Your task to perform on an android device: Go to network settings Image 0: 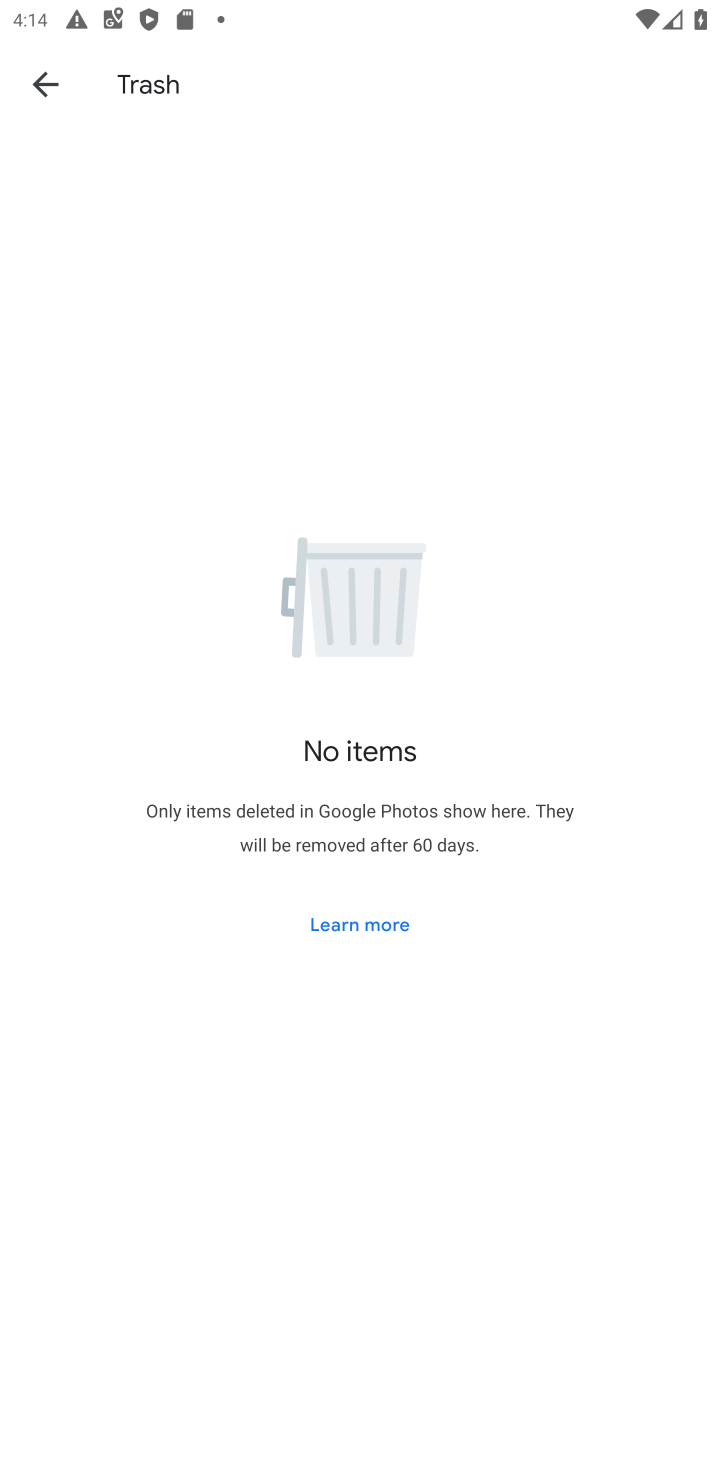
Step 0: press home button
Your task to perform on an android device: Go to network settings Image 1: 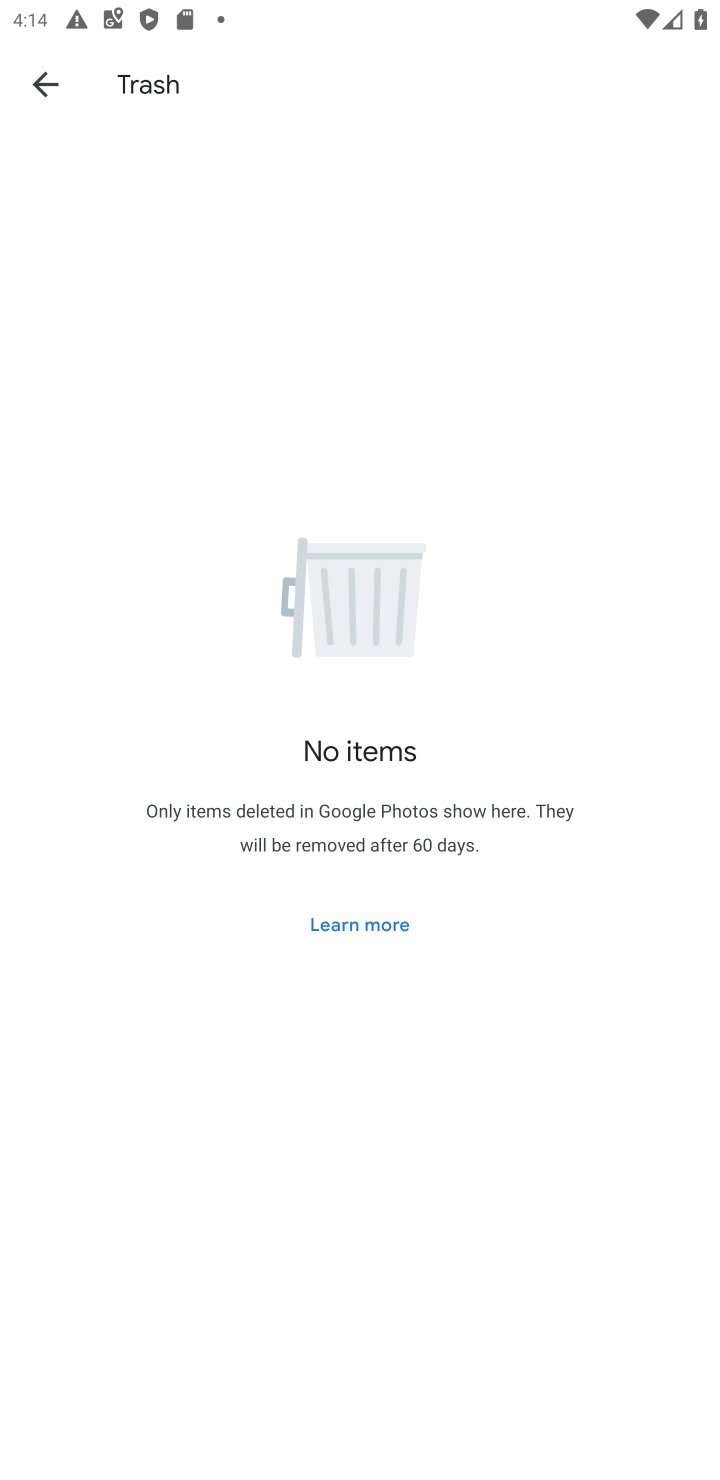
Step 1: press home button
Your task to perform on an android device: Go to network settings Image 2: 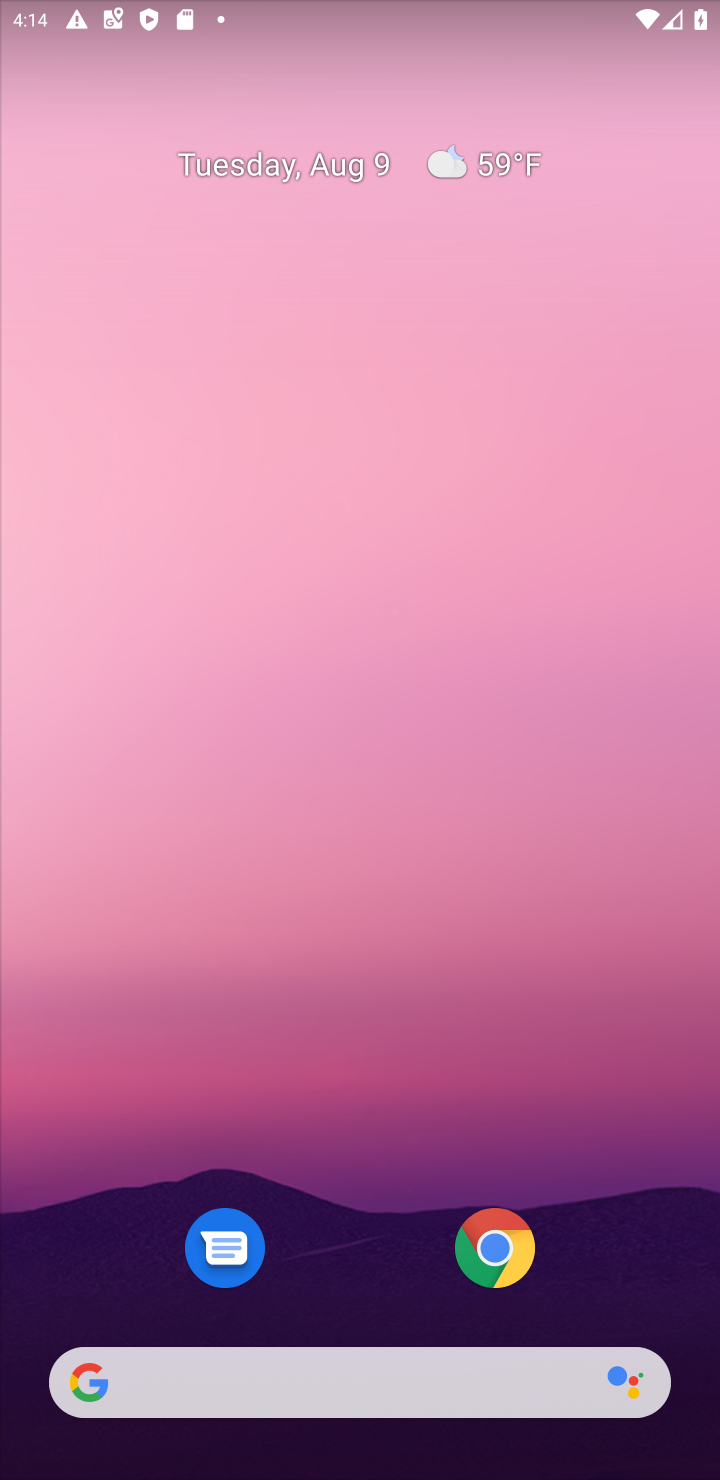
Step 2: drag from (400, 1198) to (352, 481)
Your task to perform on an android device: Go to network settings Image 3: 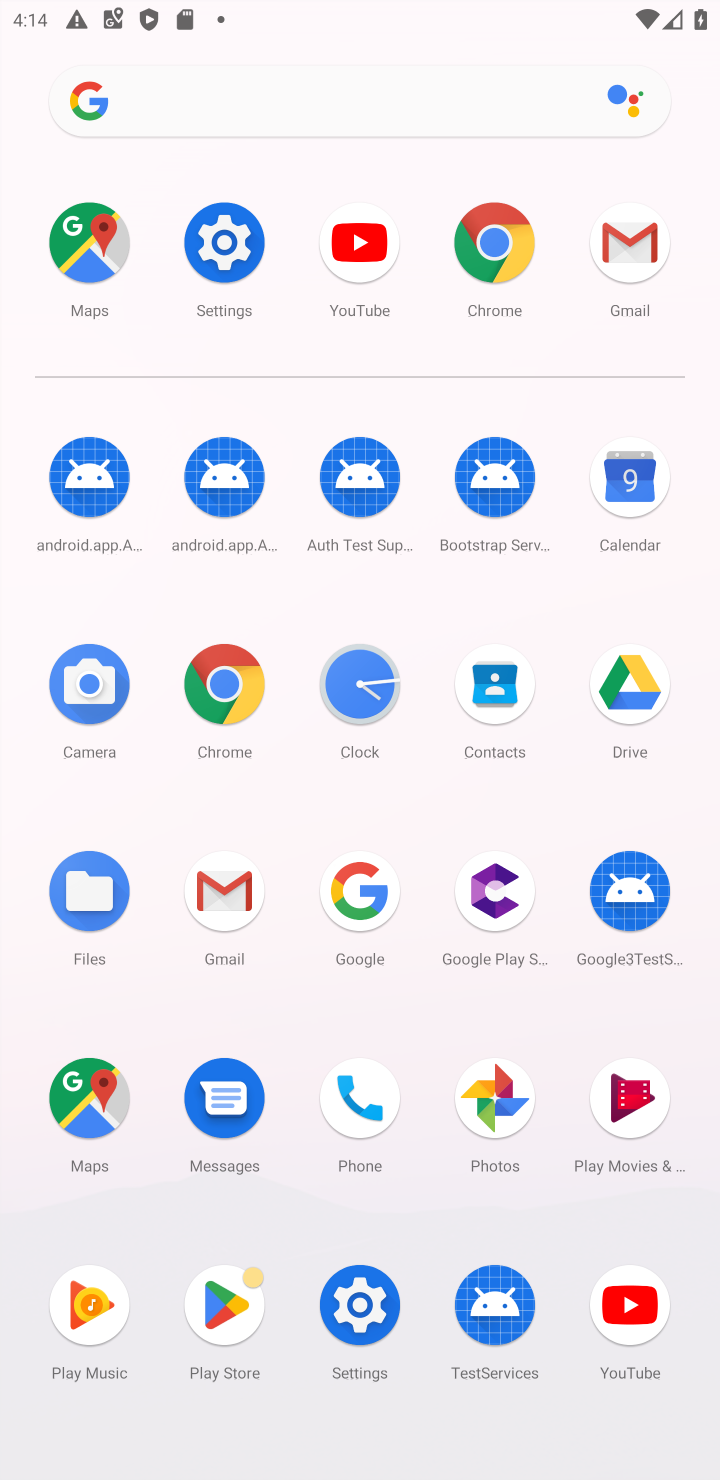
Step 3: click (242, 235)
Your task to perform on an android device: Go to network settings Image 4: 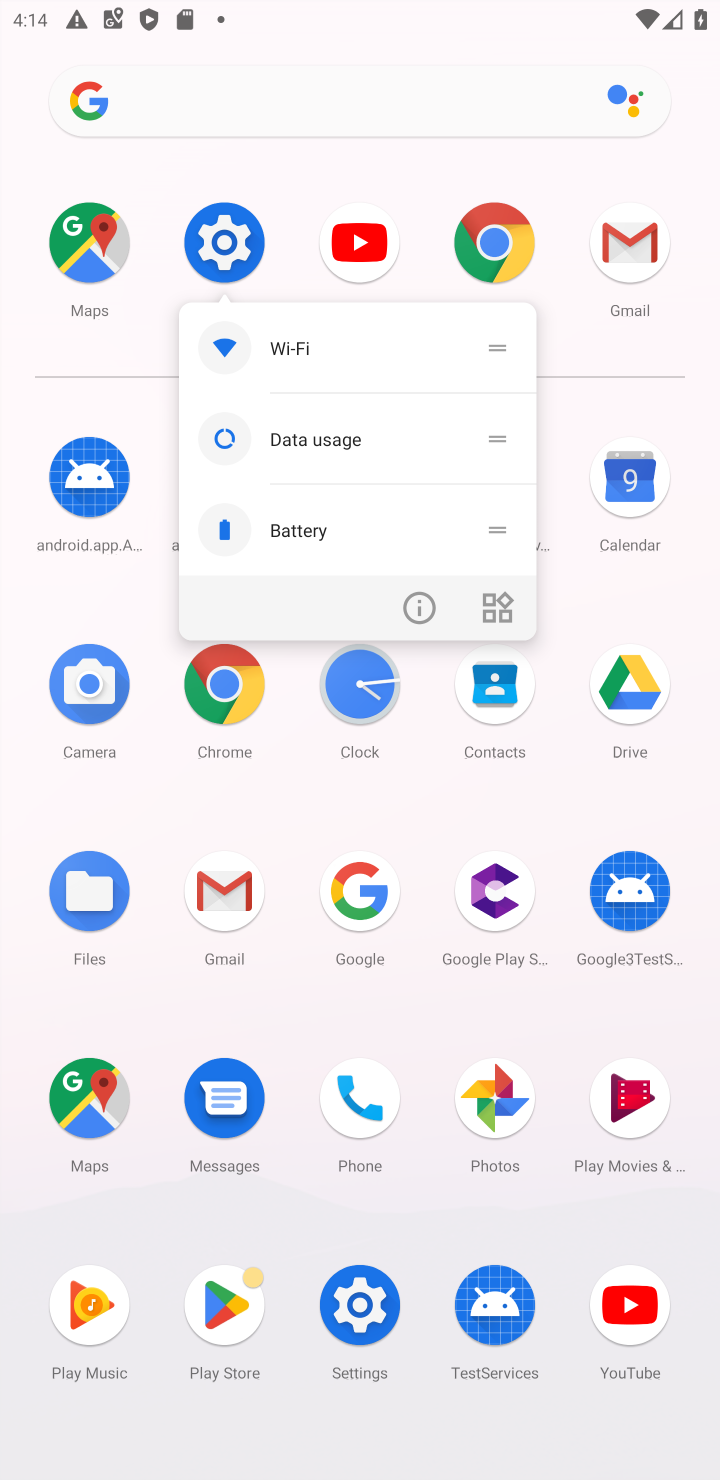
Step 4: click (225, 235)
Your task to perform on an android device: Go to network settings Image 5: 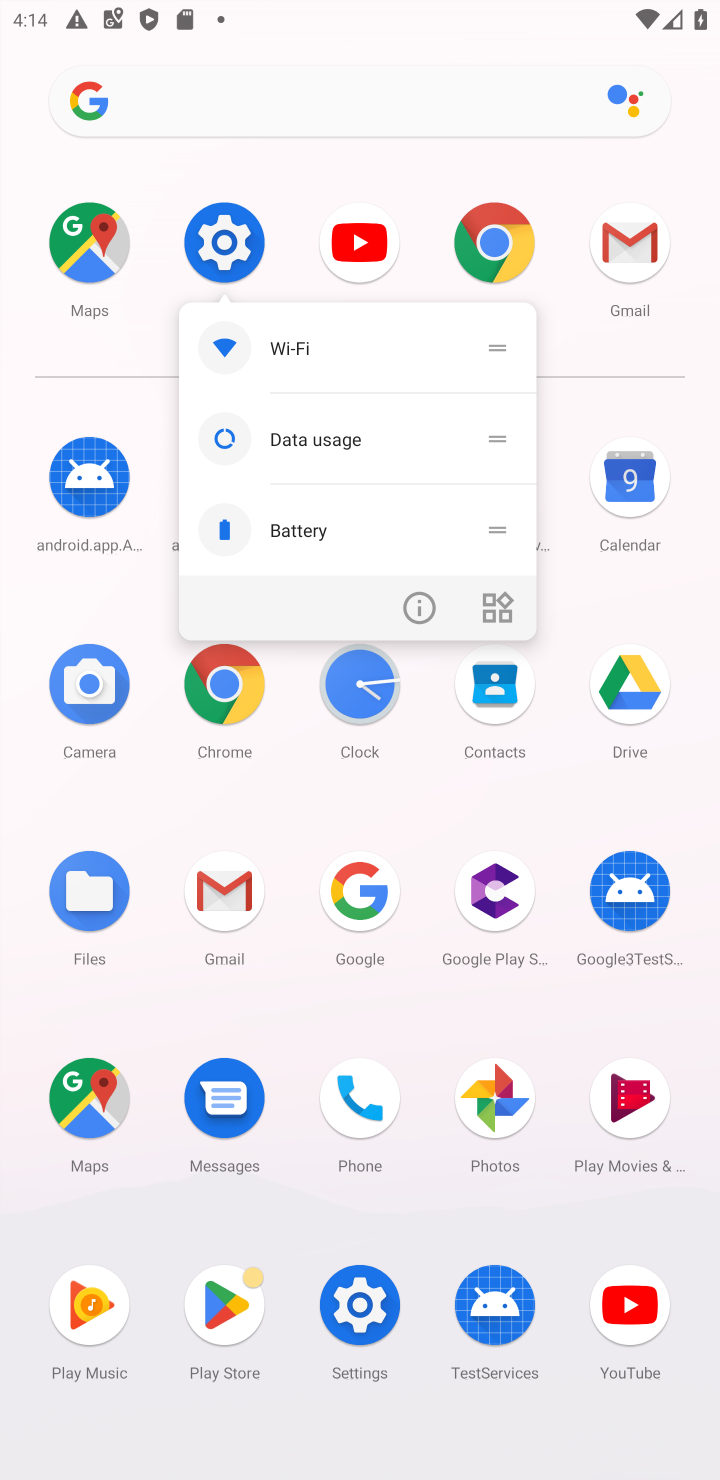
Step 5: click (225, 235)
Your task to perform on an android device: Go to network settings Image 6: 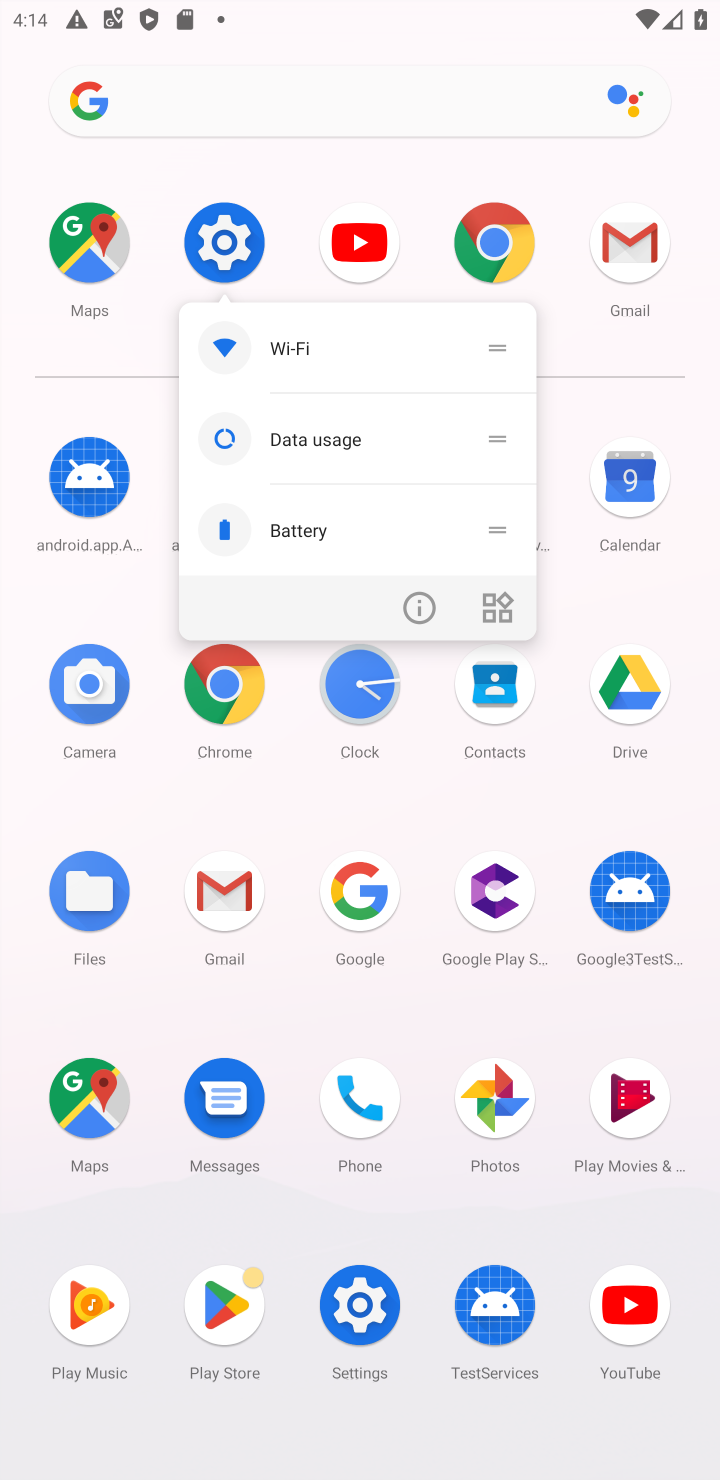
Step 6: click (355, 1293)
Your task to perform on an android device: Go to network settings Image 7: 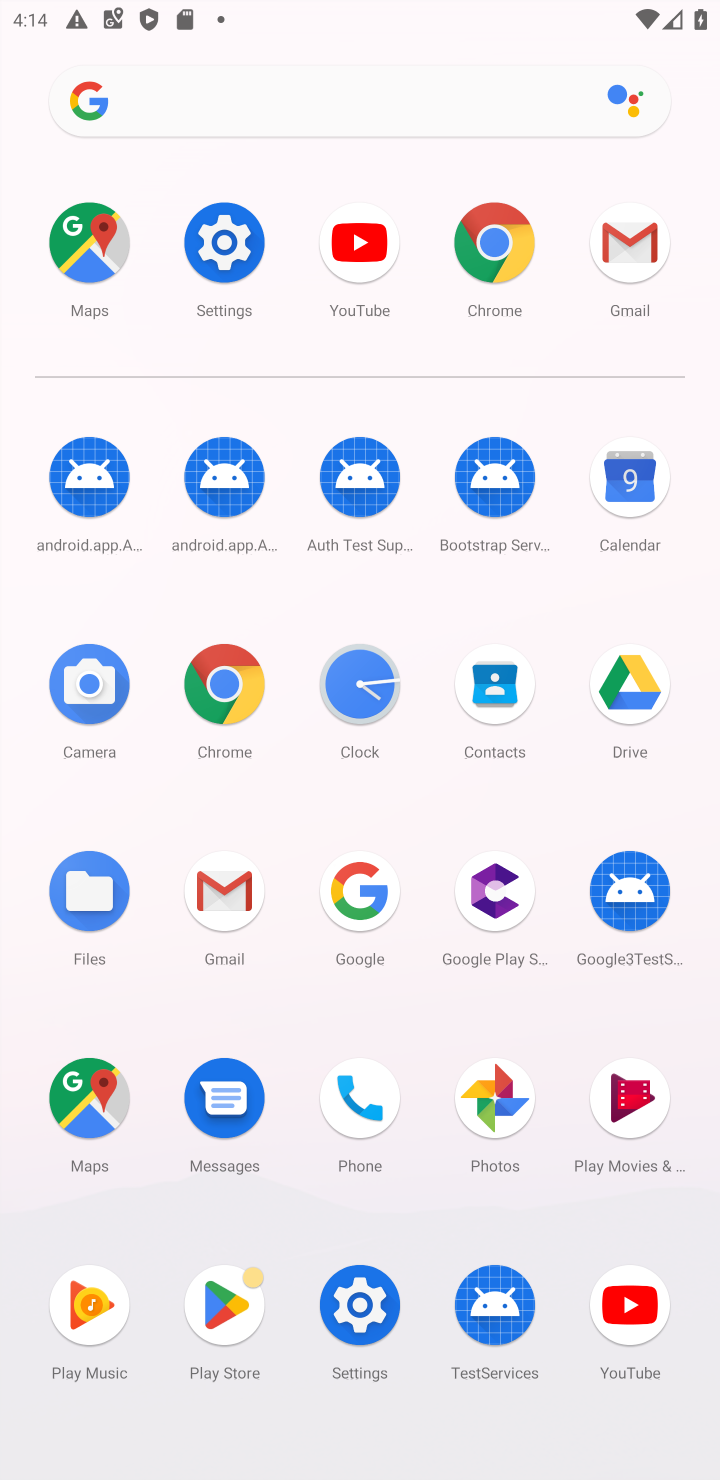
Step 7: click (363, 1298)
Your task to perform on an android device: Go to network settings Image 8: 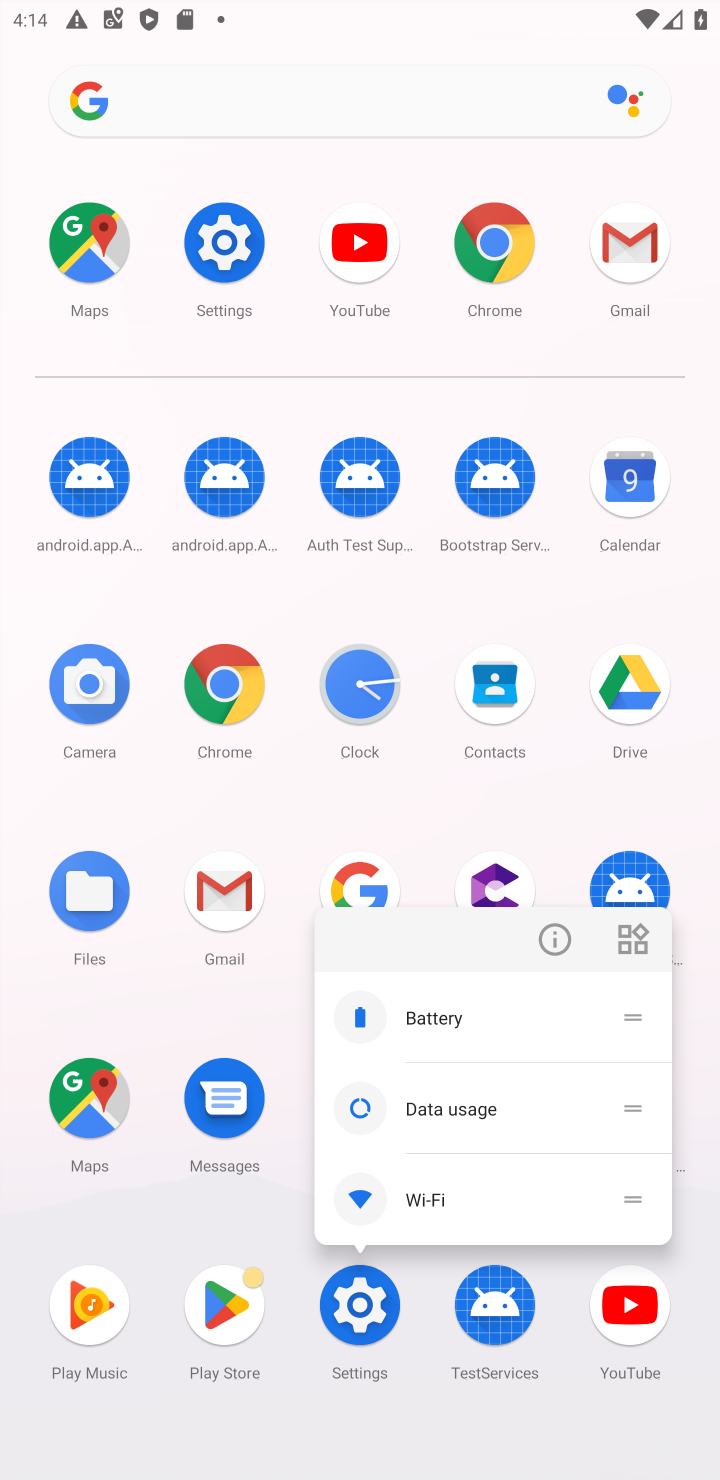
Step 8: click (351, 1295)
Your task to perform on an android device: Go to network settings Image 9: 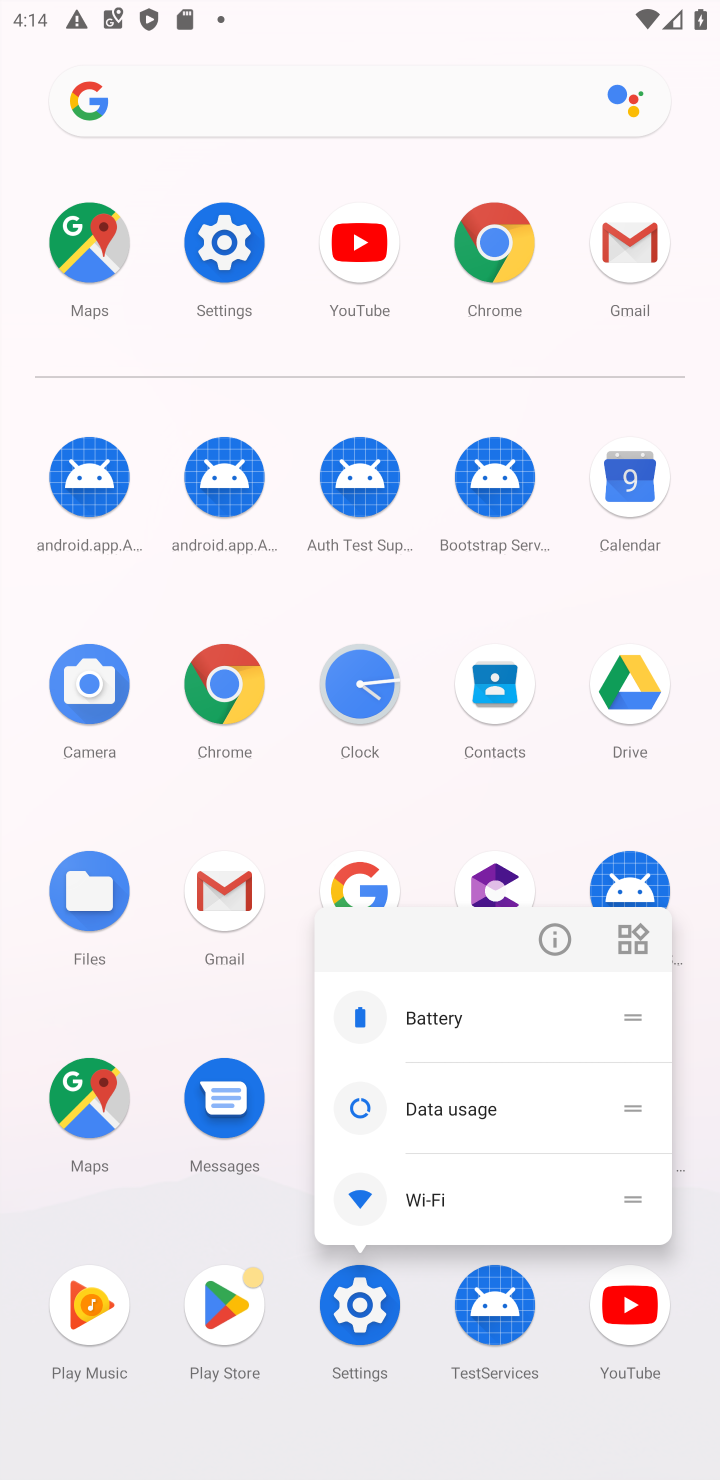
Step 9: click (355, 1288)
Your task to perform on an android device: Go to network settings Image 10: 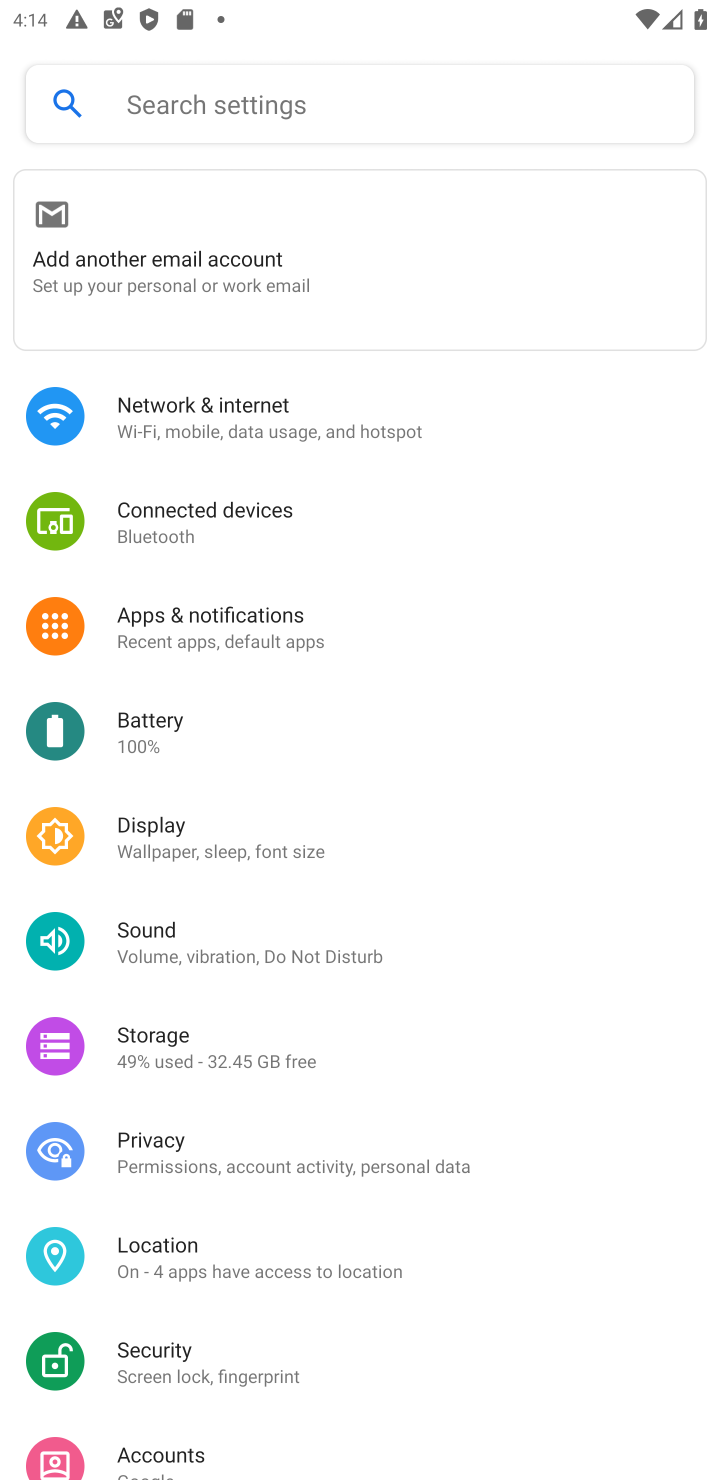
Step 10: click (160, 402)
Your task to perform on an android device: Go to network settings Image 11: 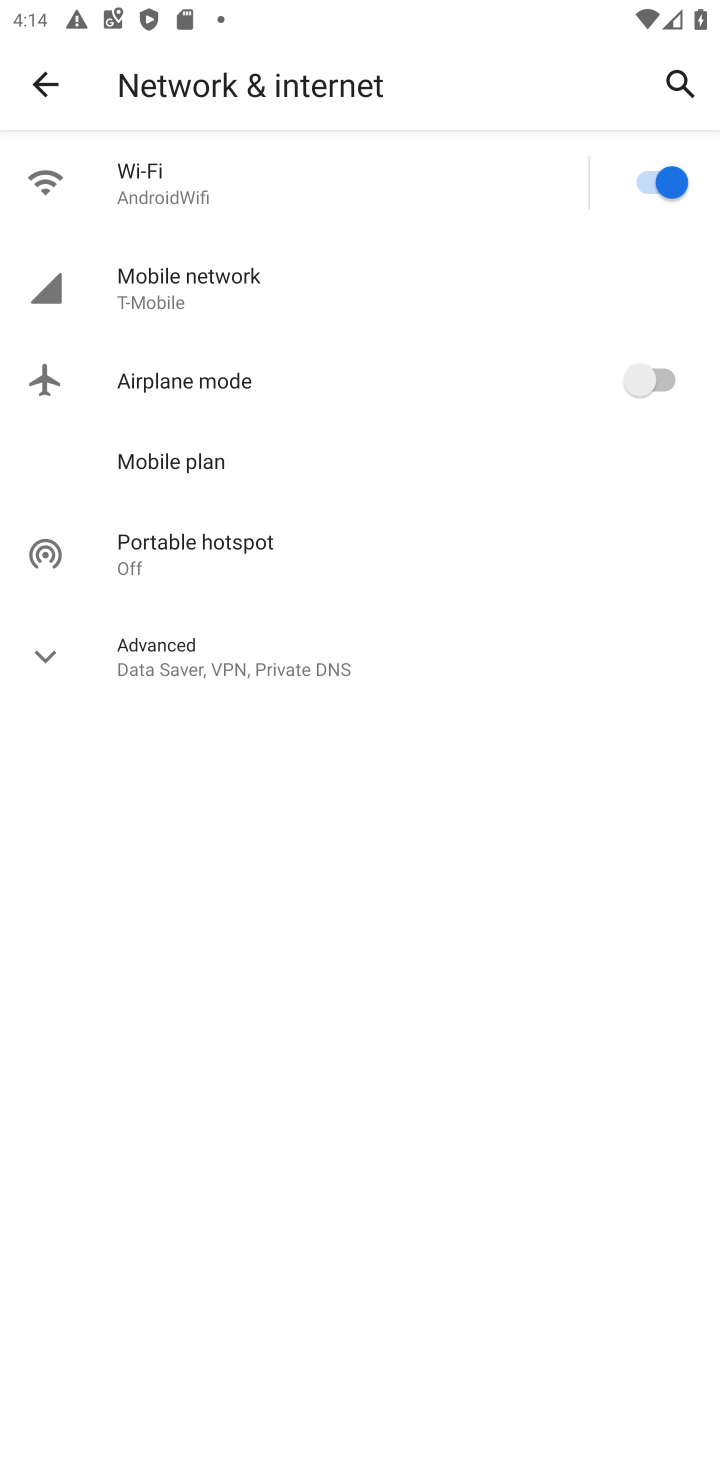
Step 11: task complete